Your task to perform on an android device: Go to battery settings Image 0: 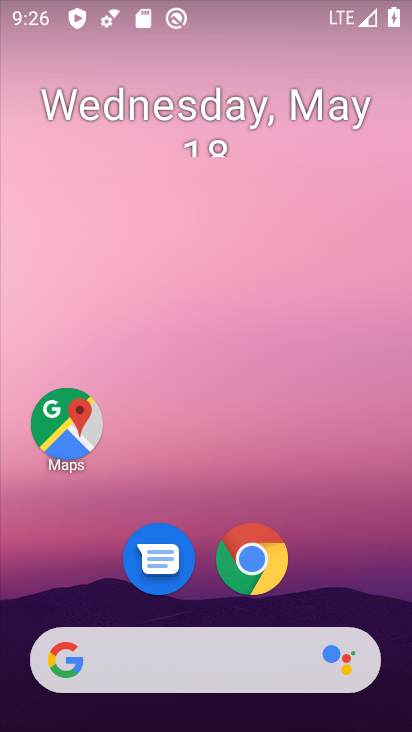
Step 0: drag from (358, 539) to (291, 9)
Your task to perform on an android device: Go to battery settings Image 1: 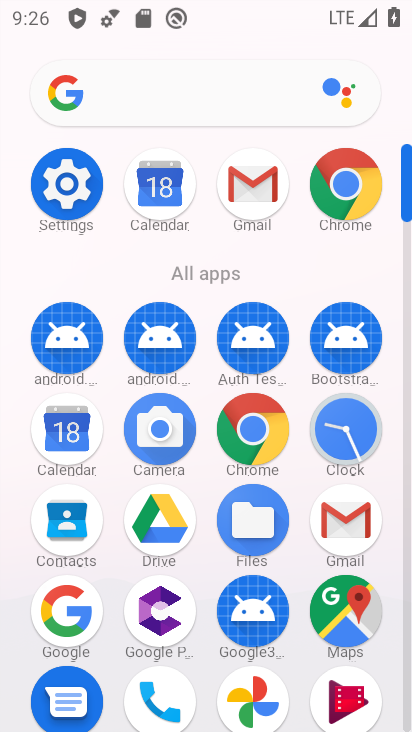
Step 1: drag from (12, 592) to (32, 254)
Your task to perform on an android device: Go to battery settings Image 2: 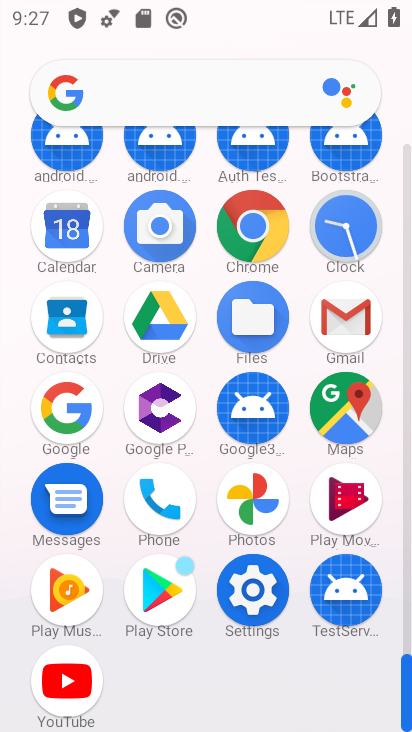
Step 2: click (250, 586)
Your task to perform on an android device: Go to battery settings Image 3: 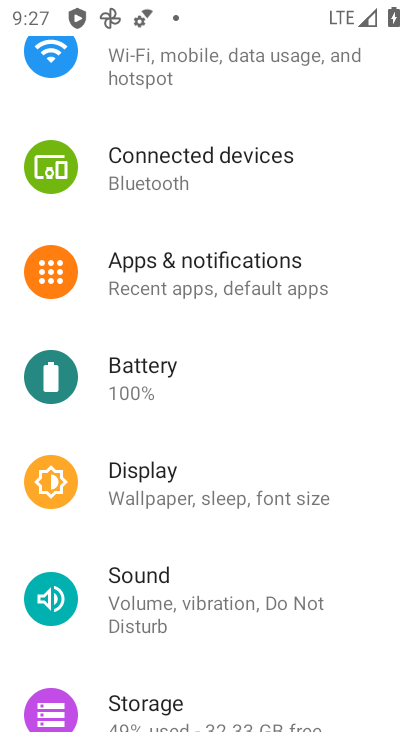
Step 3: click (171, 367)
Your task to perform on an android device: Go to battery settings Image 4: 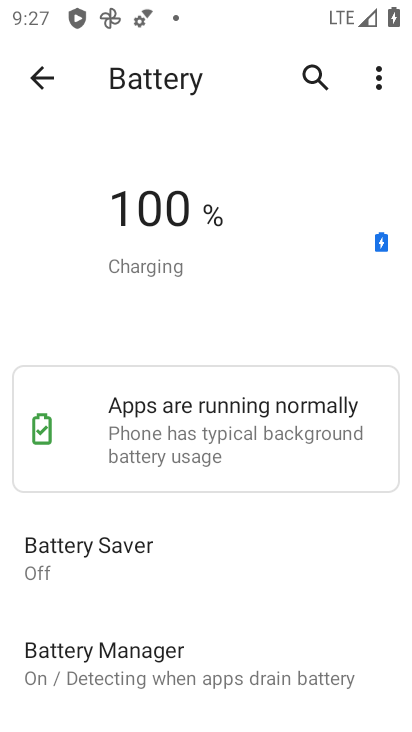
Step 4: task complete